Your task to perform on an android device: see tabs open on other devices in the chrome app Image 0: 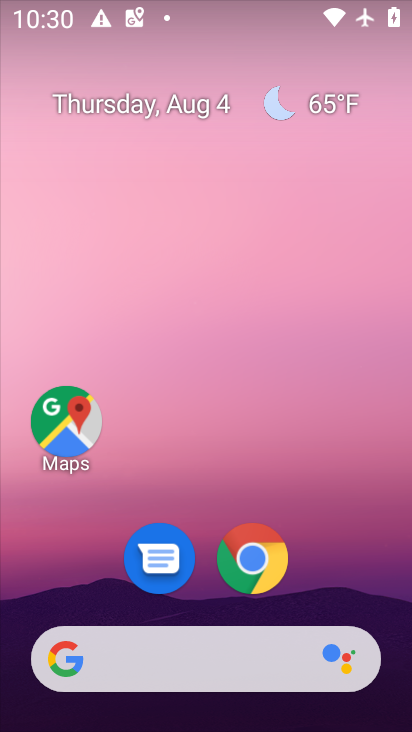
Step 0: drag from (372, 549) to (341, 121)
Your task to perform on an android device: see tabs open on other devices in the chrome app Image 1: 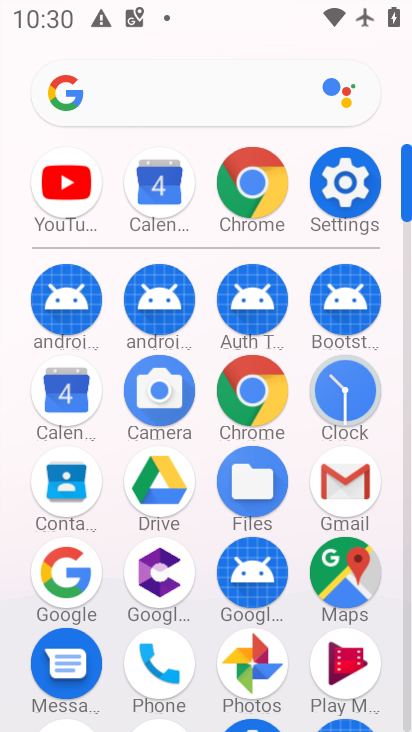
Step 1: click (250, 388)
Your task to perform on an android device: see tabs open on other devices in the chrome app Image 2: 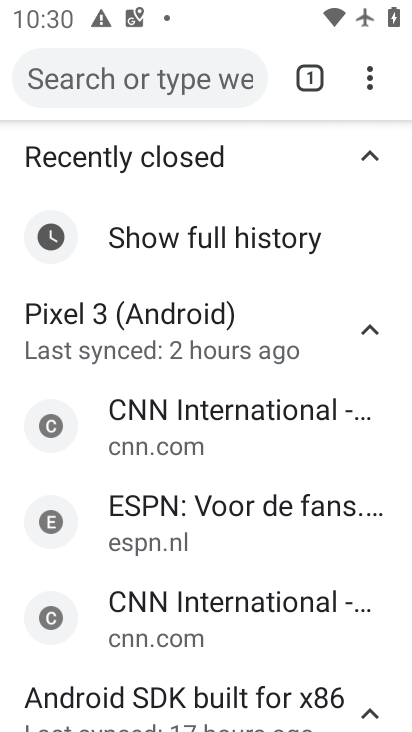
Step 2: task complete